Your task to perform on an android device: clear all cookies in the chrome app Image 0: 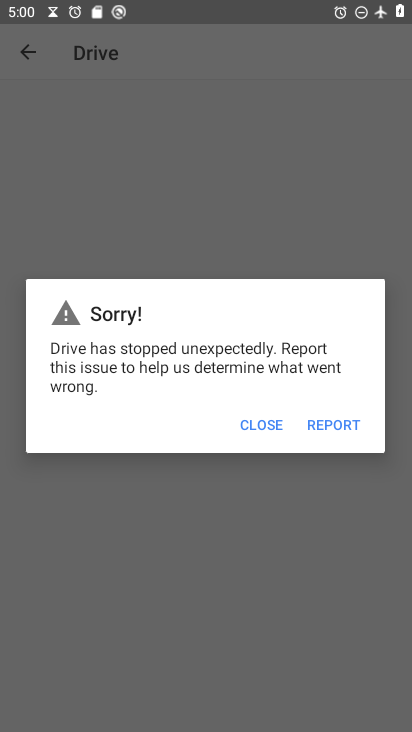
Step 0: press back button
Your task to perform on an android device: clear all cookies in the chrome app Image 1: 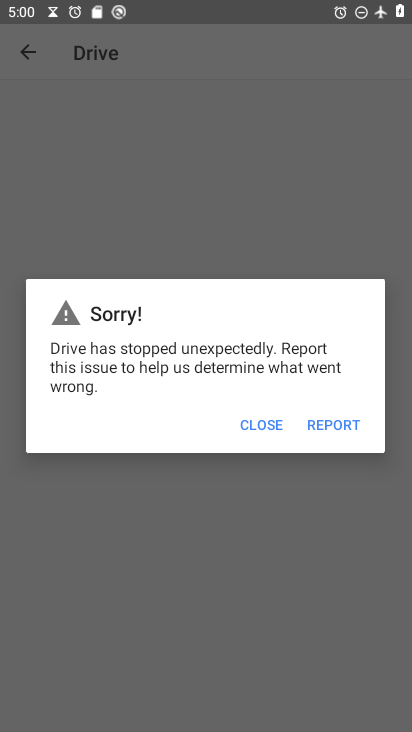
Step 1: press back button
Your task to perform on an android device: clear all cookies in the chrome app Image 2: 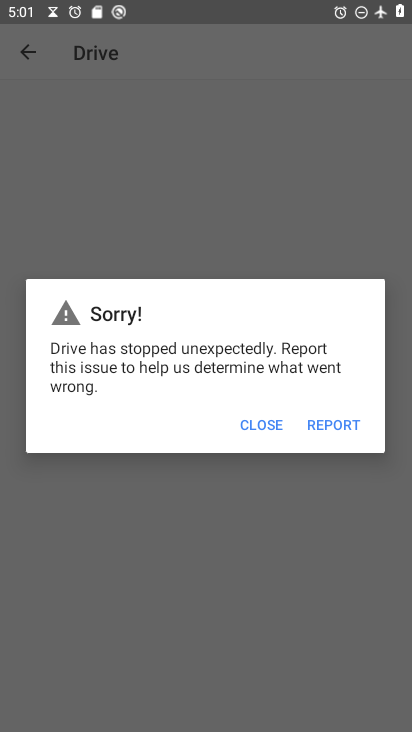
Step 2: press home button
Your task to perform on an android device: clear all cookies in the chrome app Image 3: 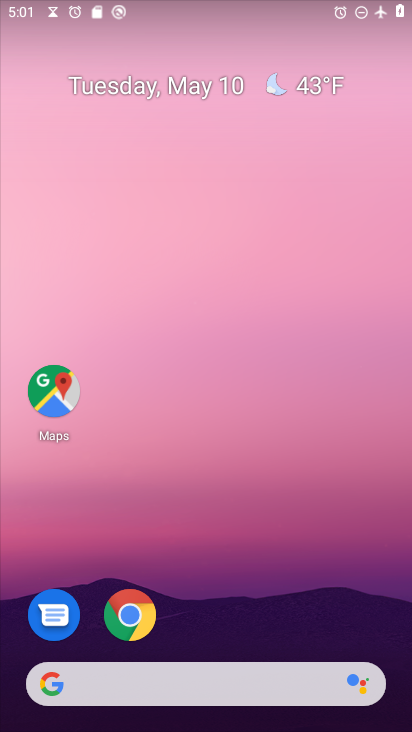
Step 3: drag from (285, 590) to (271, 7)
Your task to perform on an android device: clear all cookies in the chrome app Image 4: 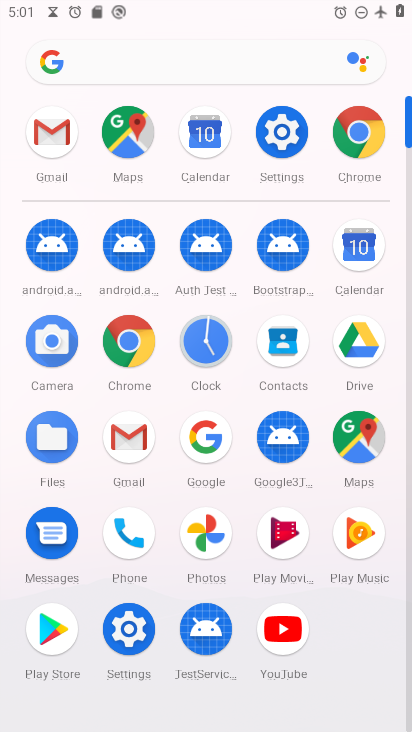
Step 4: click (124, 342)
Your task to perform on an android device: clear all cookies in the chrome app Image 5: 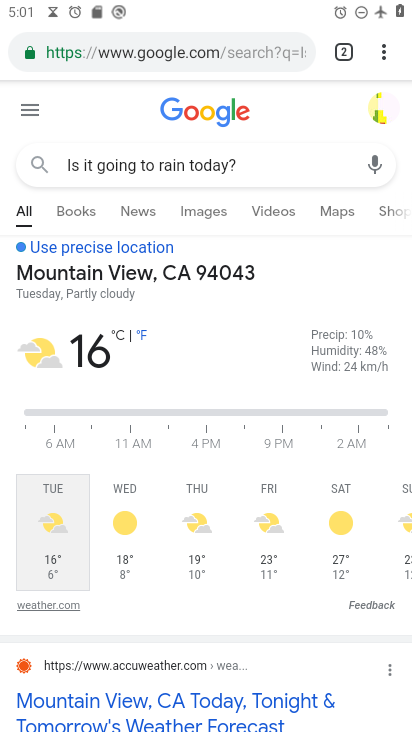
Step 5: drag from (378, 48) to (223, 641)
Your task to perform on an android device: clear all cookies in the chrome app Image 6: 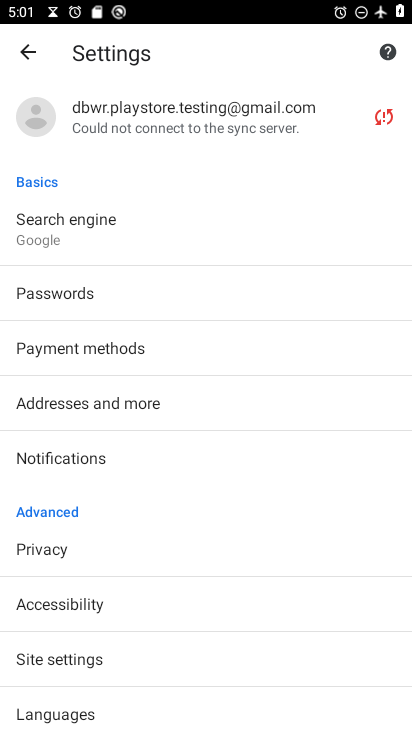
Step 6: drag from (166, 630) to (198, 277)
Your task to perform on an android device: clear all cookies in the chrome app Image 7: 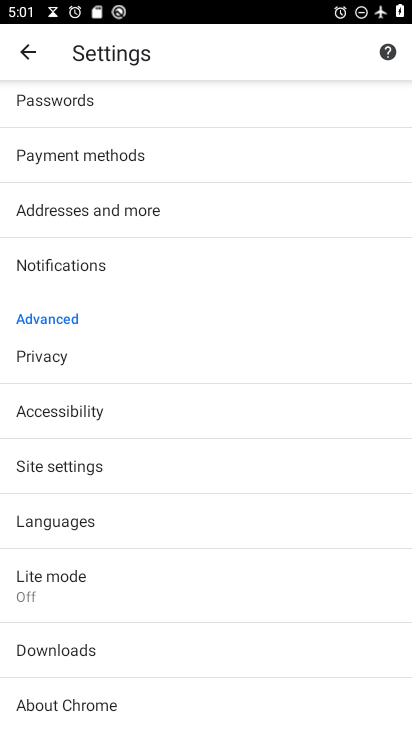
Step 7: click (112, 467)
Your task to perform on an android device: clear all cookies in the chrome app Image 8: 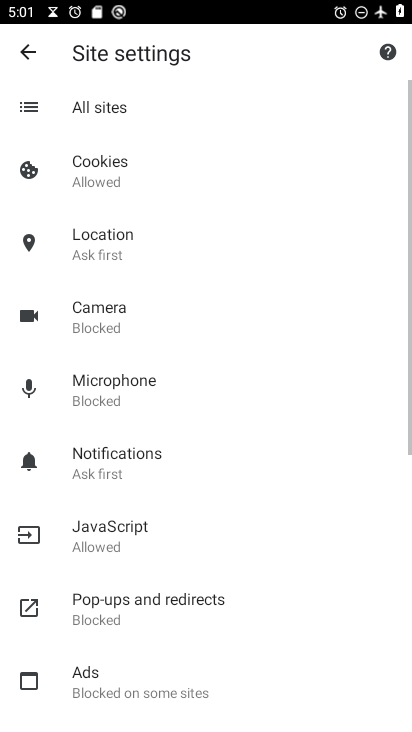
Step 8: drag from (230, 608) to (250, 233)
Your task to perform on an android device: clear all cookies in the chrome app Image 9: 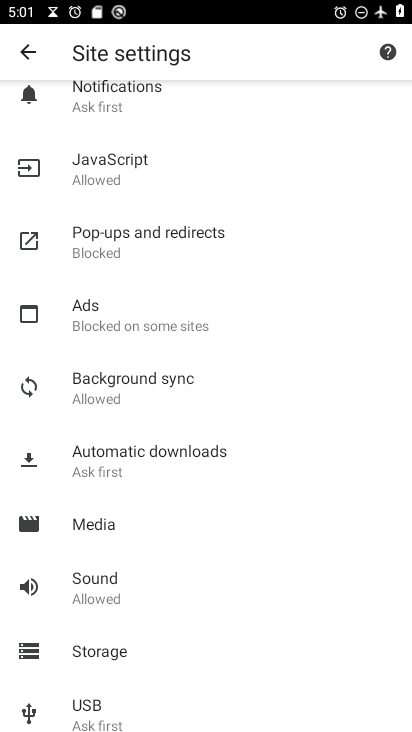
Step 9: drag from (225, 300) to (235, 678)
Your task to perform on an android device: clear all cookies in the chrome app Image 10: 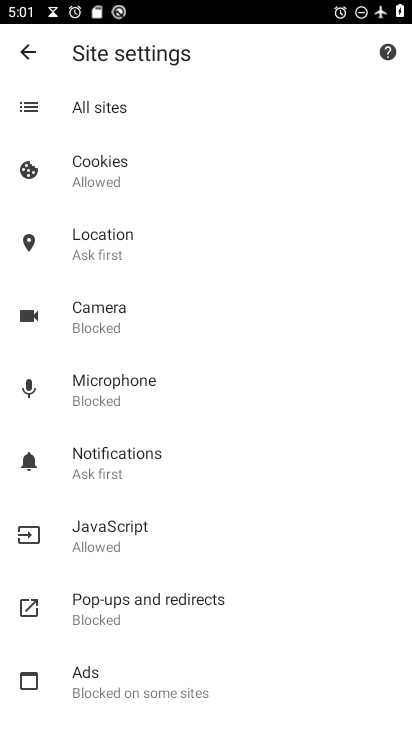
Step 10: drag from (242, 228) to (243, 612)
Your task to perform on an android device: clear all cookies in the chrome app Image 11: 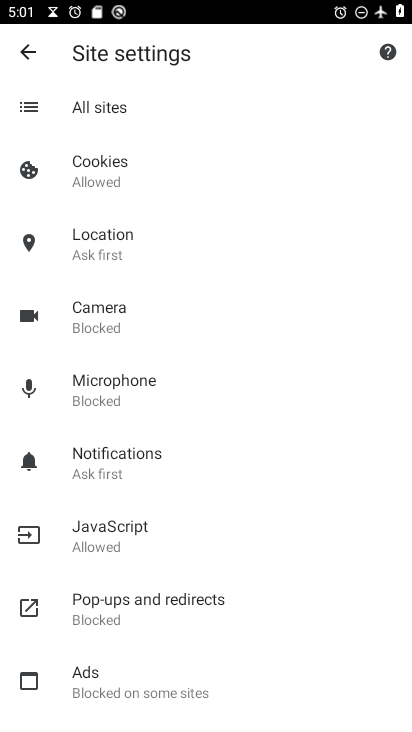
Step 11: drag from (205, 604) to (248, 181)
Your task to perform on an android device: clear all cookies in the chrome app Image 12: 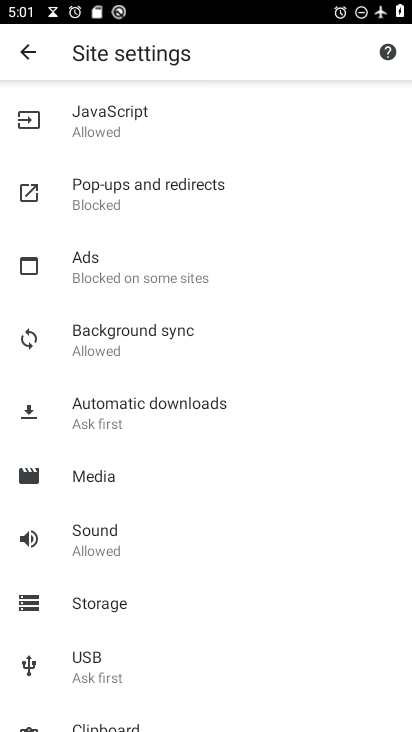
Step 12: drag from (162, 599) to (240, 106)
Your task to perform on an android device: clear all cookies in the chrome app Image 13: 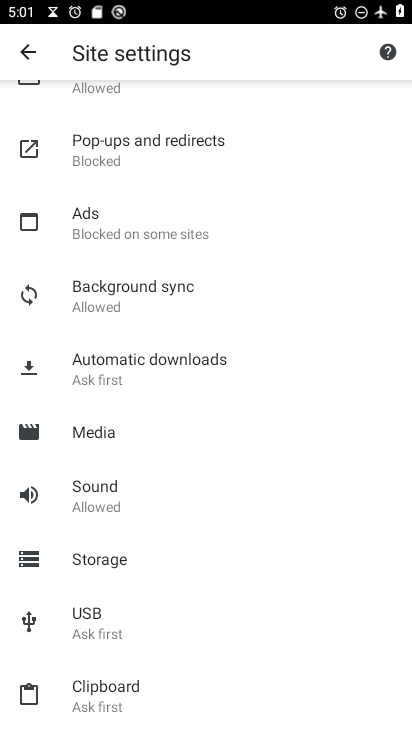
Step 13: click (25, 42)
Your task to perform on an android device: clear all cookies in the chrome app Image 14: 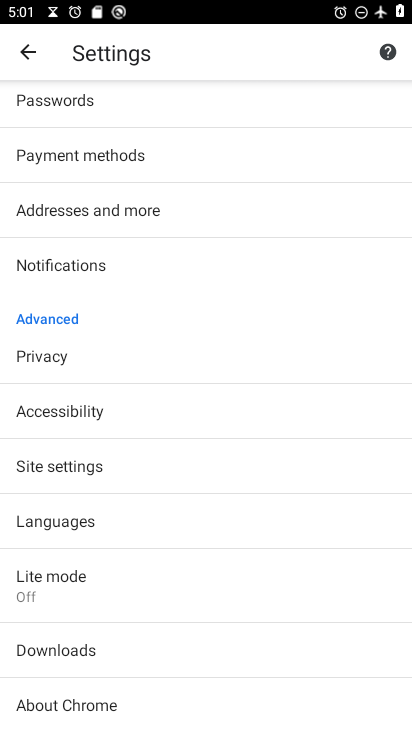
Step 14: click (142, 361)
Your task to perform on an android device: clear all cookies in the chrome app Image 15: 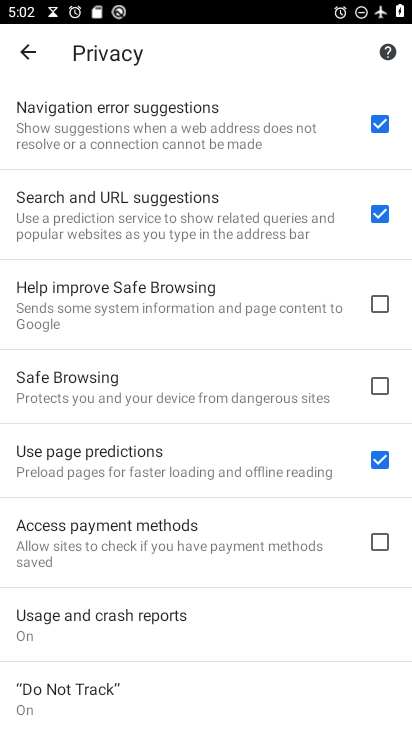
Step 15: drag from (230, 602) to (261, 108)
Your task to perform on an android device: clear all cookies in the chrome app Image 16: 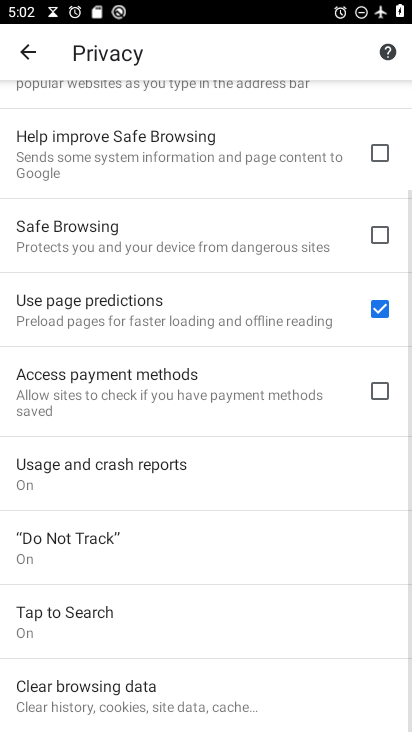
Step 16: drag from (268, 648) to (310, 178)
Your task to perform on an android device: clear all cookies in the chrome app Image 17: 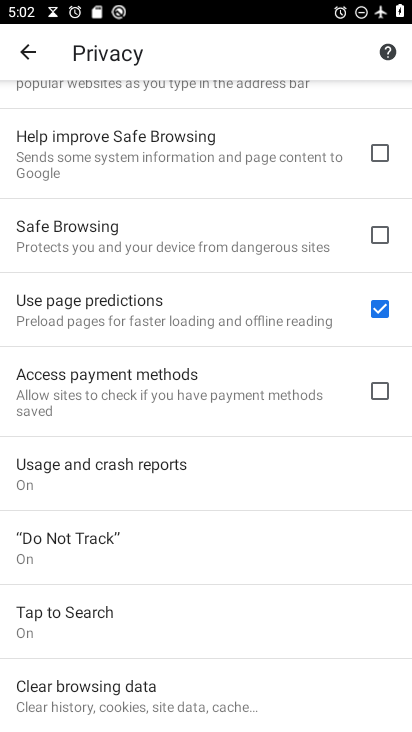
Step 17: click (172, 710)
Your task to perform on an android device: clear all cookies in the chrome app Image 18: 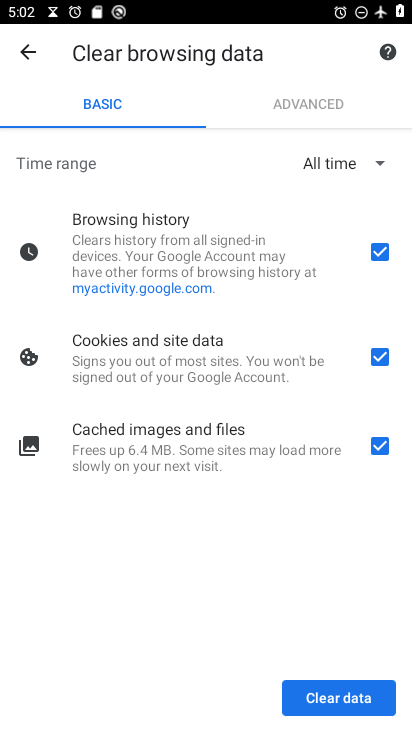
Step 18: click (369, 244)
Your task to perform on an android device: clear all cookies in the chrome app Image 19: 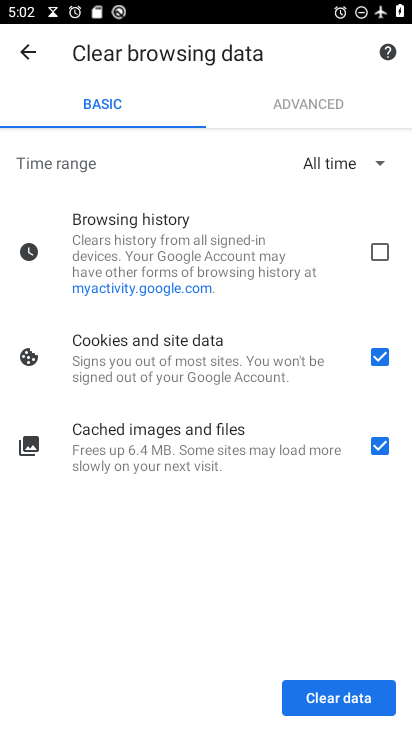
Step 19: click (382, 444)
Your task to perform on an android device: clear all cookies in the chrome app Image 20: 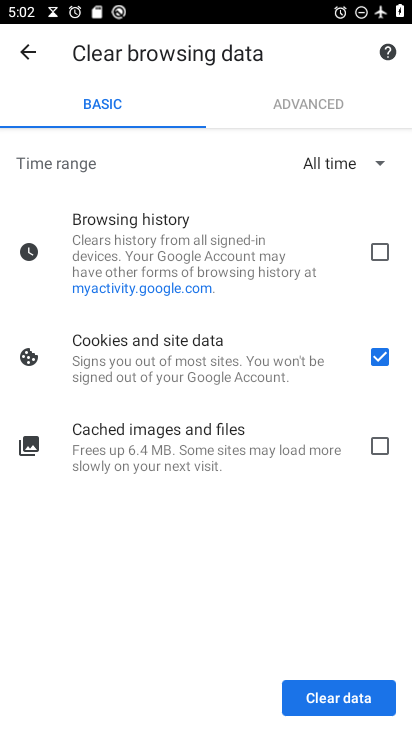
Step 20: click (304, 694)
Your task to perform on an android device: clear all cookies in the chrome app Image 21: 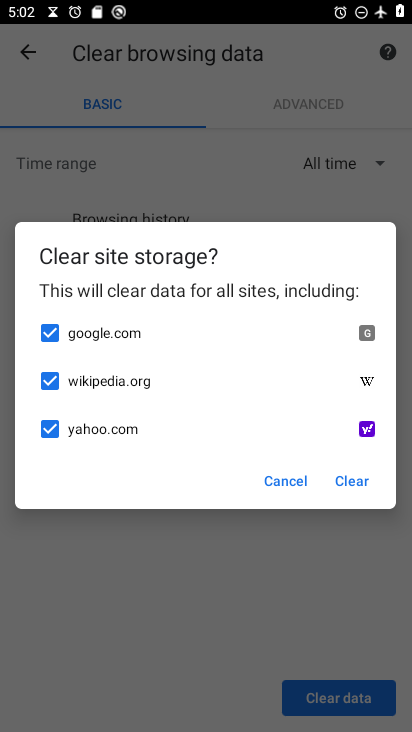
Step 21: click (352, 481)
Your task to perform on an android device: clear all cookies in the chrome app Image 22: 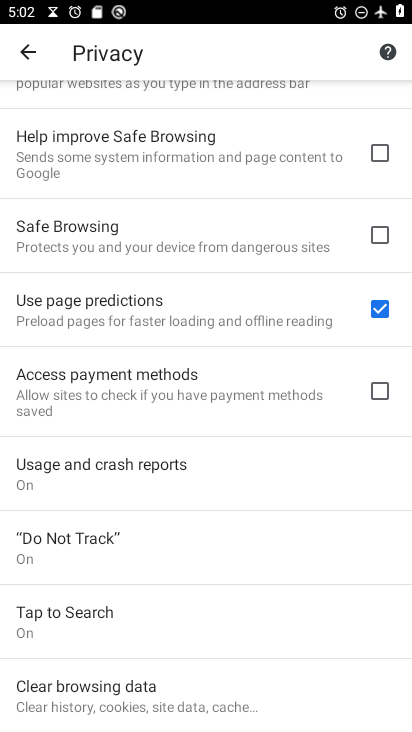
Step 22: drag from (237, 521) to (244, 183)
Your task to perform on an android device: clear all cookies in the chrome app Image 23: 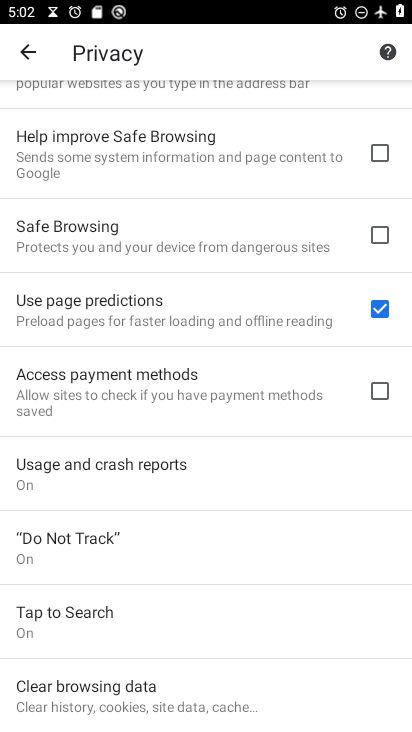
Step 23: drag from (249, 174) to (249, 581)
Your task to perform on an android device: clear all cookies in the chrome app Image 24: 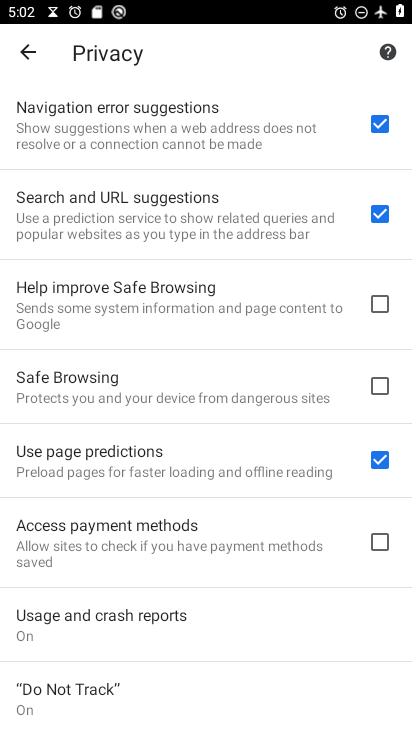
Step 24: drag from (226, 500) to (254, 85)
Your task to perform on an android device: clear all cookies in the chrome app Image 25: 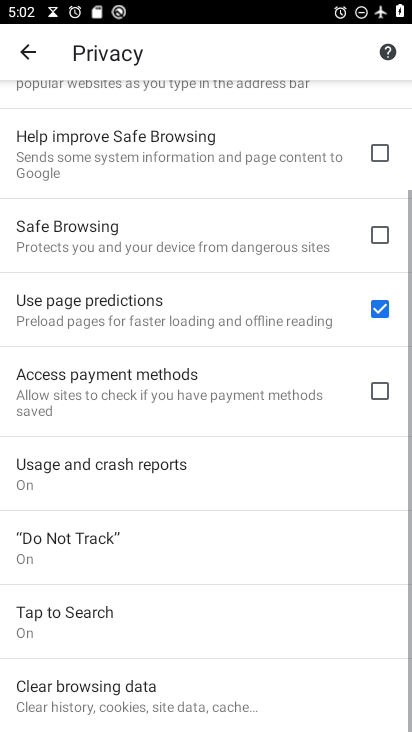
Step 25: click (134, 709)
Your task to perform on an android device: clear all cookies in the chrome app Image 26: 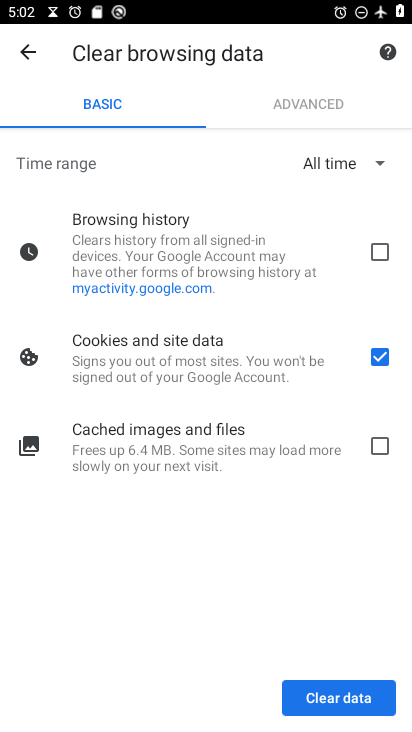
Step 26: click (361, 702)
Your task to perform on an android device: clear all cookies in the chrome app Image 27: 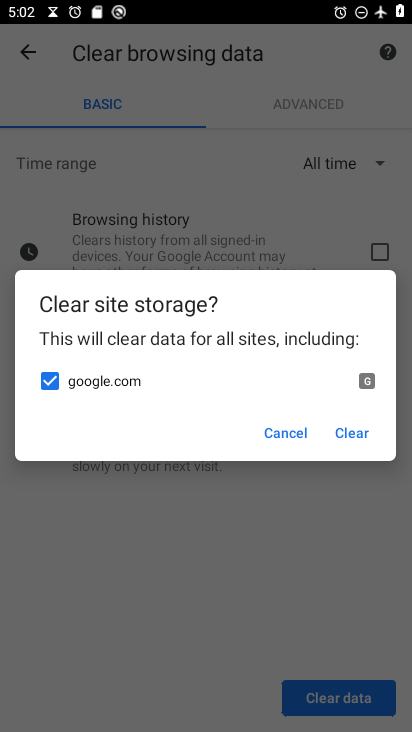
Step 27: click (354, 441)
Your task to perform on an android device: clear all cookies in the chrome app Image 28: 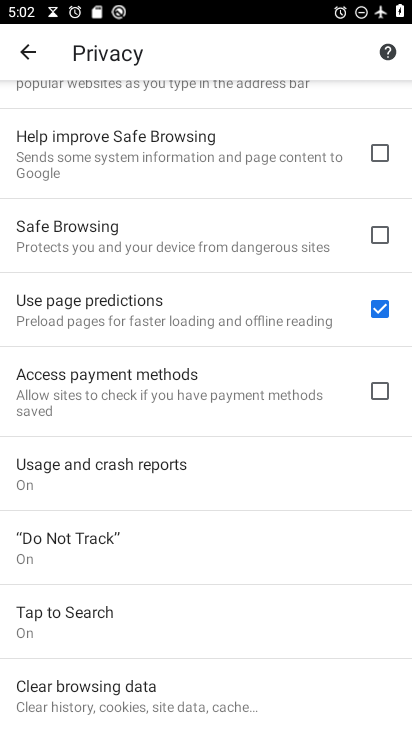
Step 28: task complete